Your task to perform on an android device: turn off improve location accuracy Image 0: 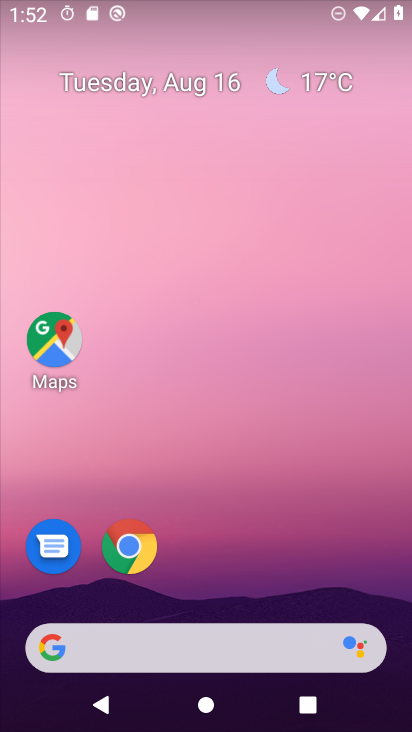
Step 0: drag from (207, 606) to (183, 517)
Your task to perform on an android device: turn off improve location accuracy Image 1: 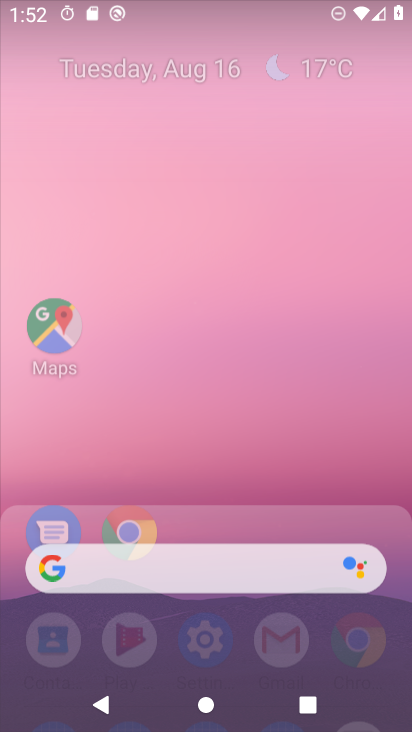
Step 1: click (191, 117)
Your task to perform on an android device: turn off improve location accuracy Image 2: 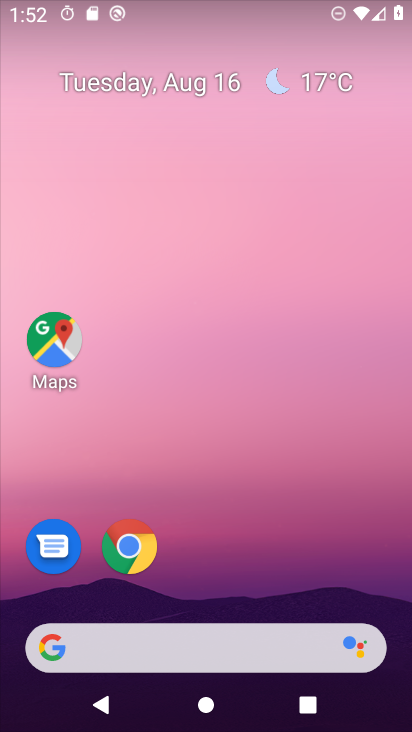
Step 2: drag from (191, 619) to (146, 46)
Your task to perform on an android device: turn off improve location accuracy Image 3: 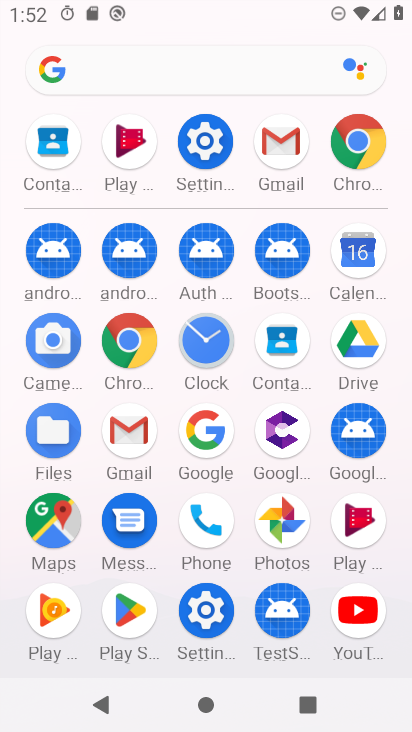
Step 3: click (200, 149)
Your task to perform on an android device: turn off improve location accuracy Image 4: 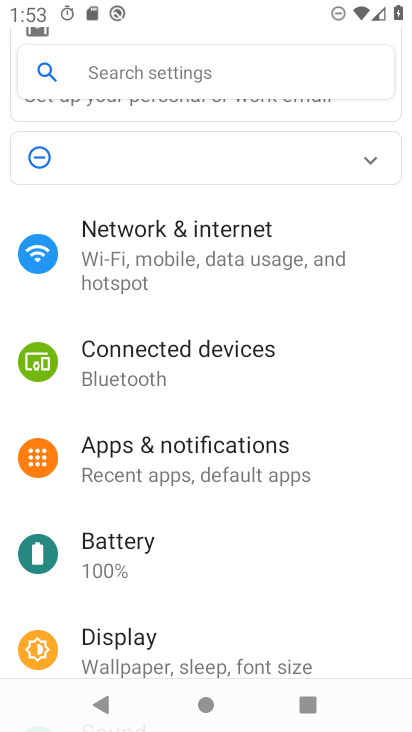
Step 4: click (200, 131)
Your task to perform on an android device: turn off improve location accuracy Image 5: 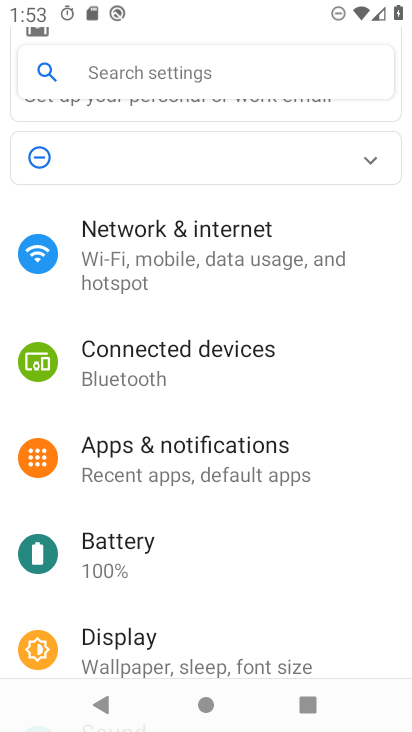
Step 5: drag from (170, 635) to (117, 289)
Your task to perform on an android device: turn off improve location accuracy Image 6: 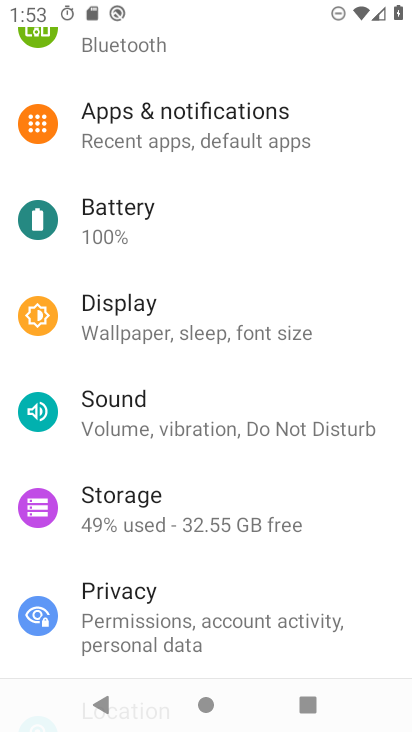
Step 6: drag from (142, 625) to (118, 239)
Your task to perform on an android device: turn off improve location accuracy Image 7: 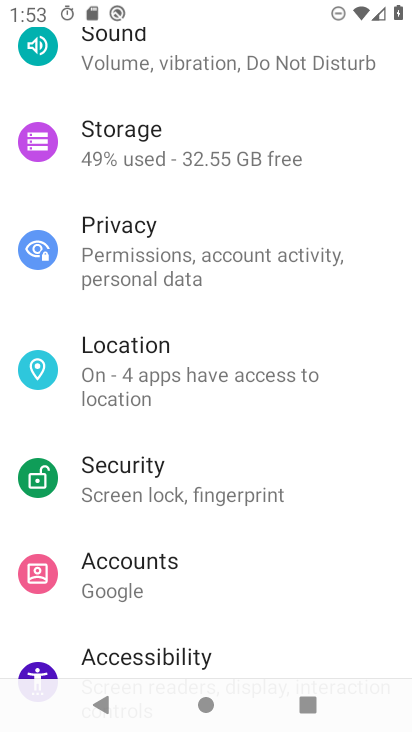
Step 7: click (102, 370)
Your task to perform on an android device: turn off improve location accuracy Image 8: 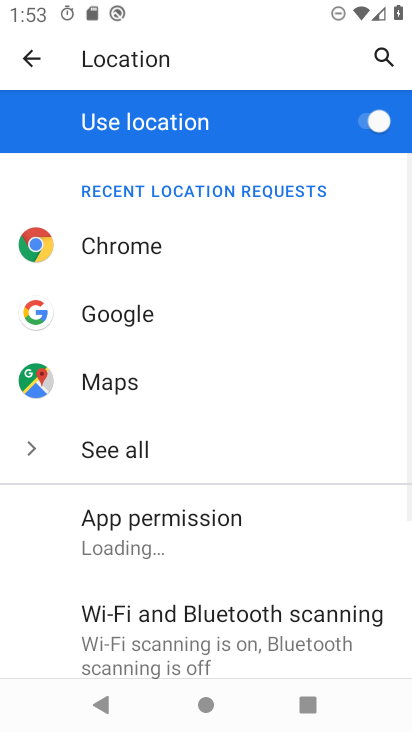
Step 8: drag from (143, 570) to (94, 188)
Your task to perform on an android device: turn off improve location accuracy Image 9: 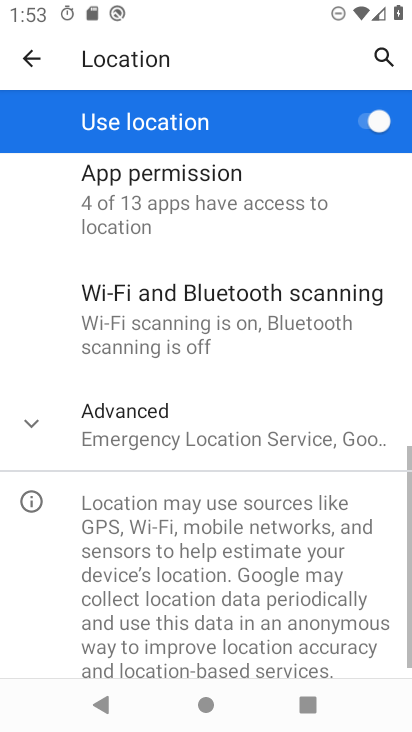
Step 9: click (136, 432)
Your task to perform on an android device: turn off improve location accuracy Image 10: 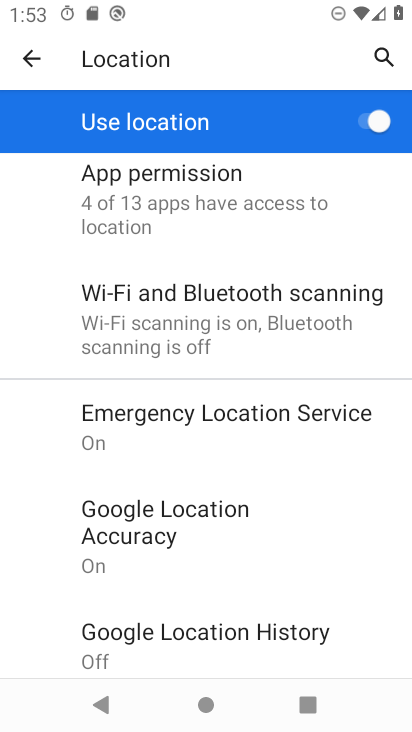
Step 10: click (152, 514)
Your task to perform on an android device: turn off improve location accuracy Image 11: 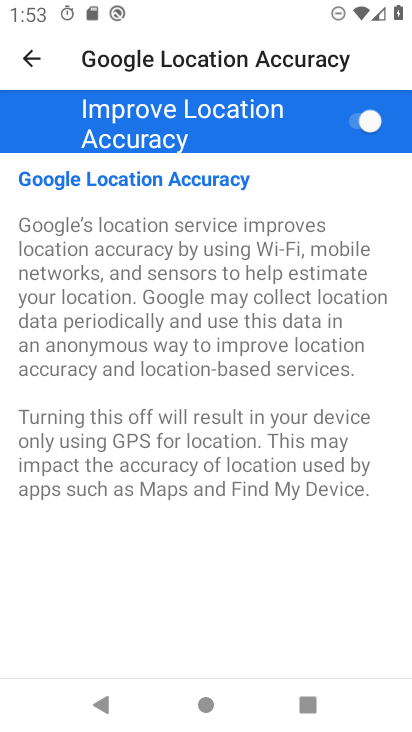
Step 11: click (352, 105)
Your task to perform on an android device: turn off improve location accuracy Image 12: 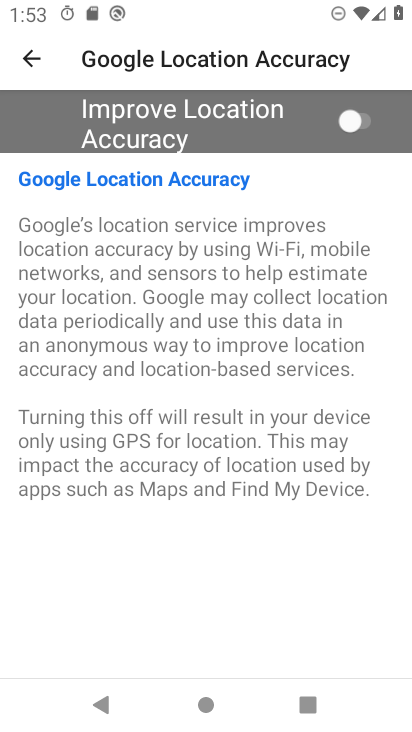
Step 12: task complete